Your task to perform on an android device: change text size in settings app Image 0: 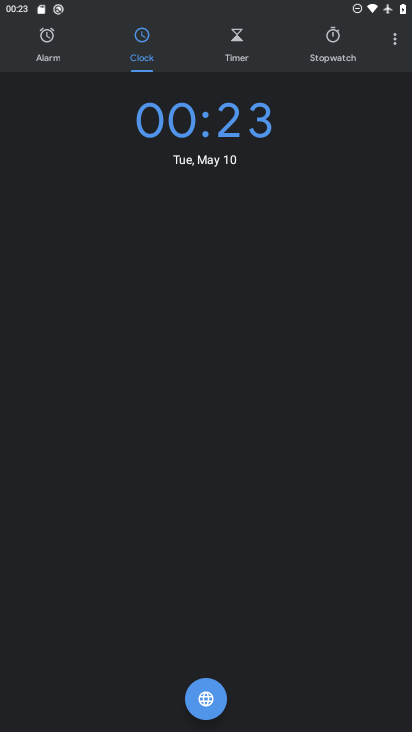
Step 0: press home button
Your task to perform on an android device: change text size in settings app Image 1: 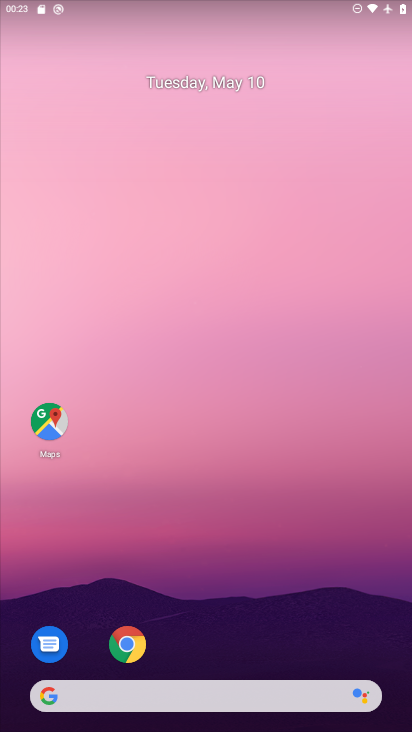
Step 1: drag from (205, 639) to (224, 186)
Your task to perform on an android device: change text size in settings app Image 2: 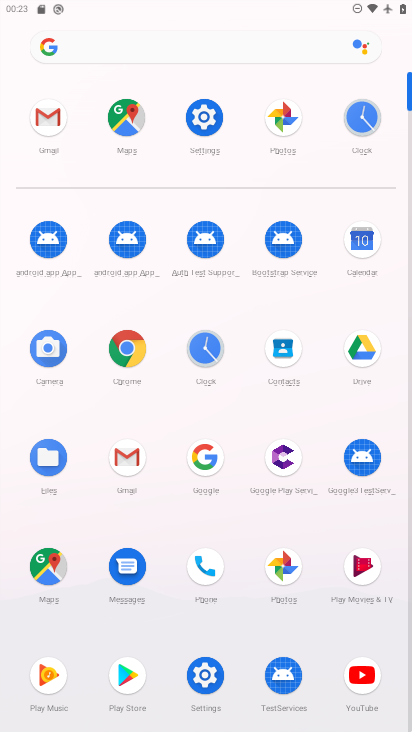
Step 2: click (206, 134)
Your task to perform on an android device: change text size in settings app Image 3: 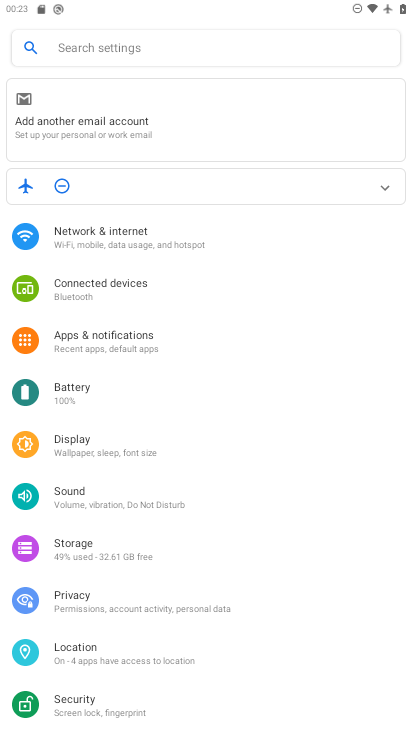
Step 3: click (160, 440)
Your task to perform on an android device: change text size in settings app Image 4: 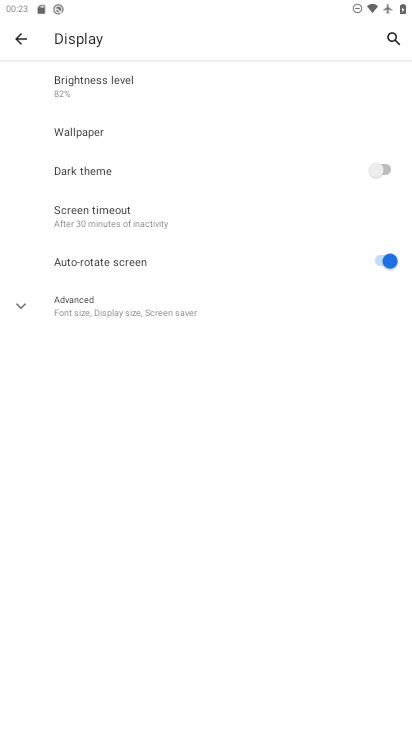
Step 4: click (100, 317)
Your task to perform on an android device: change text size in settings app Image 5: 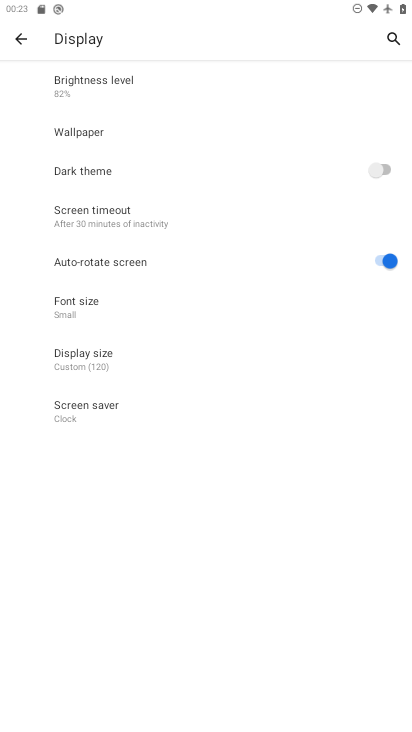
Step 5: click (105, 310)
Your task to perform on an android device: change text size in settings app Image 6: 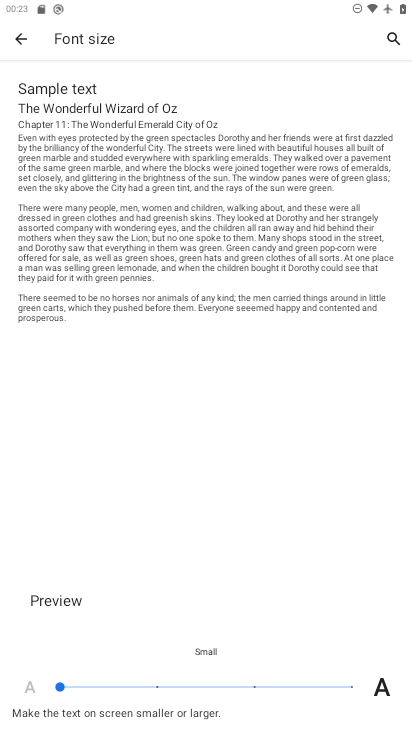
Step 6: click (148, 690)
Your task to perform on an android device: change text size in settings app Image 7: 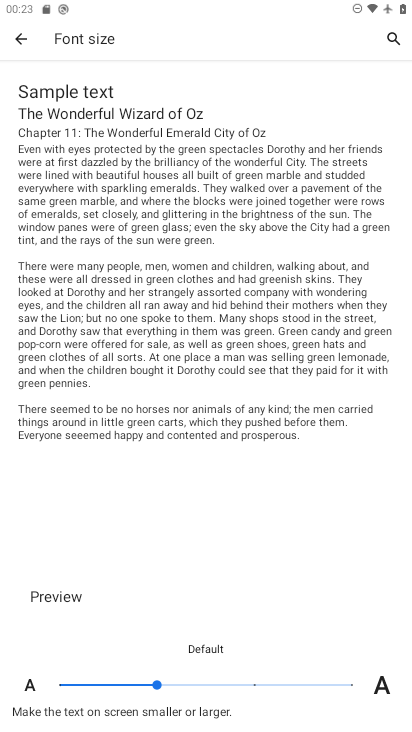
Step 7: task complete